Your task to perform on an android device: open app "Spotify" (install if not already installed) Image 0: 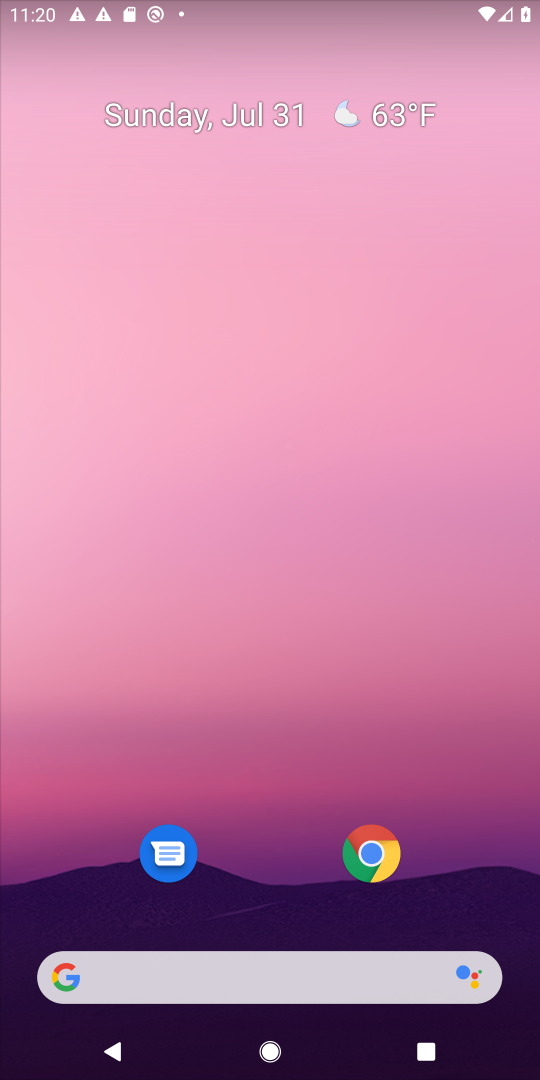
Step 0: drag from (319, 1060) to (325, 115)
Your task to perform on an android device: open app "Spotify" (install if not already installed) Image 1: 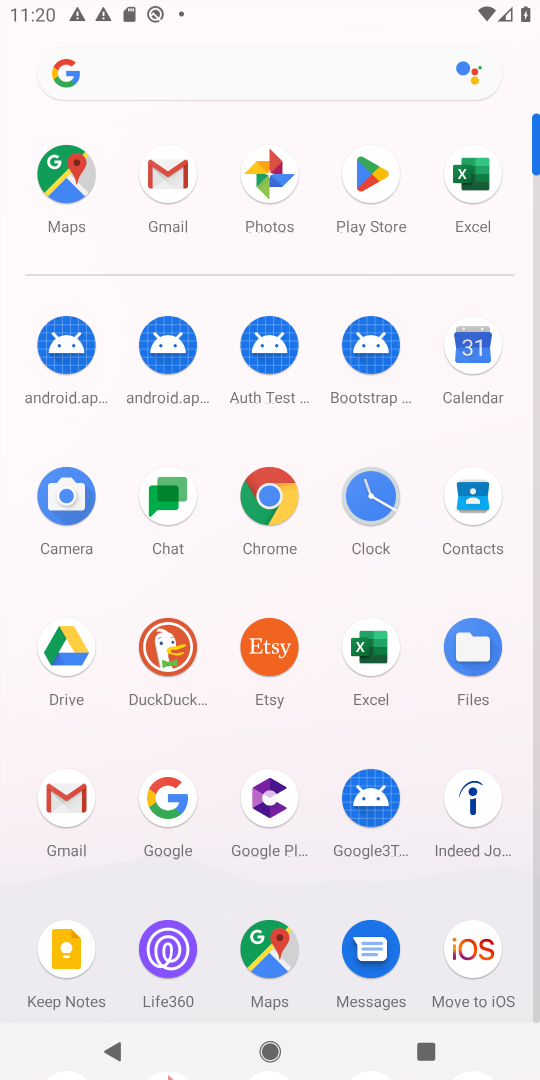
Step 1: drag from (345, 915) to (337, 460)
Your task to perform on an android device: open app "Spotify" (install if not already installed) Image 2: 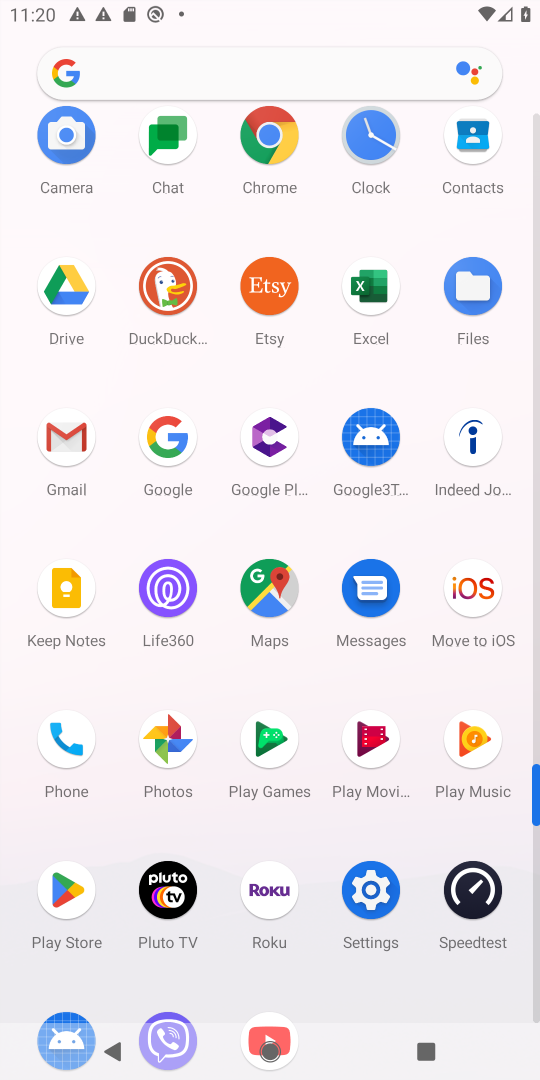
Step 2: click (67, 895)
Your task to perform on an android device: open app "Spotify" (install if not already installed) Image 3: 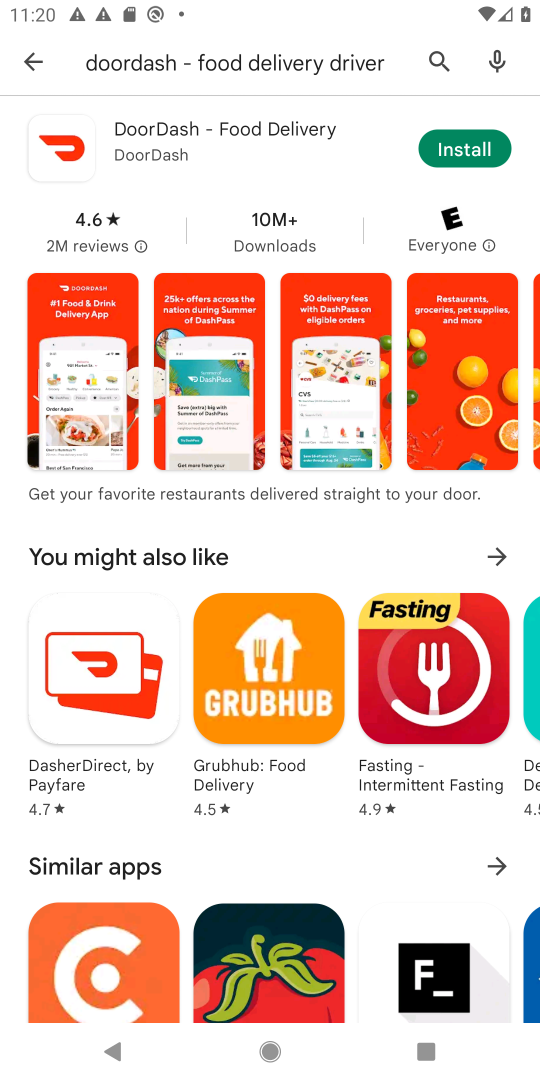
Step 3: click (439, 56)
Your task to perform on an android device: open app "Spotify" (install if not already installed) Image 4: 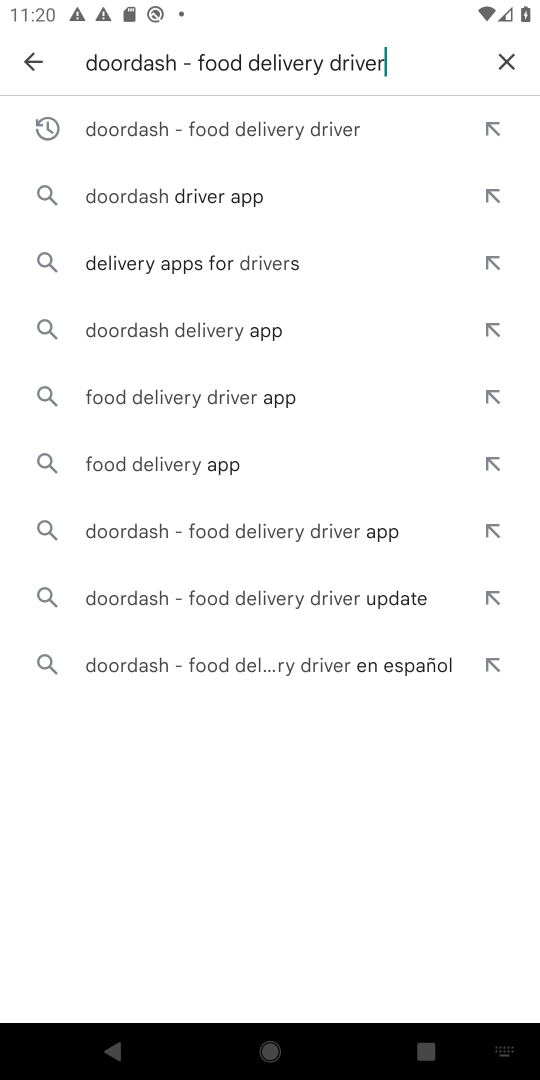
Step 4: click (501, 60)
Your task to perform on an android device: open app "Spotify" (install if not already installed) Image 5: 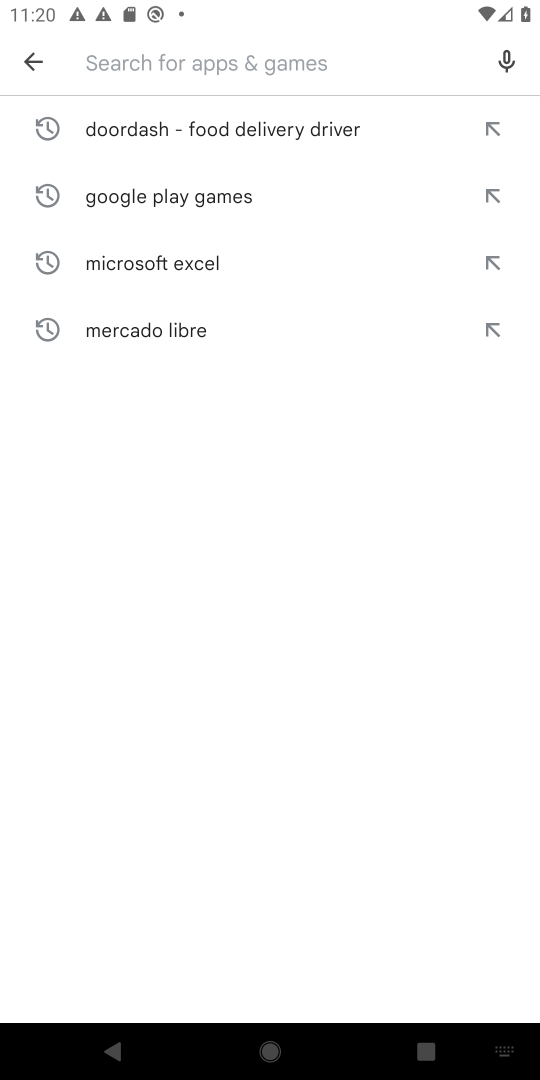
Step 5: type "Spotify"
Your task to perform on an android device: open app "Spotify" (install if not already installed) Image 6: 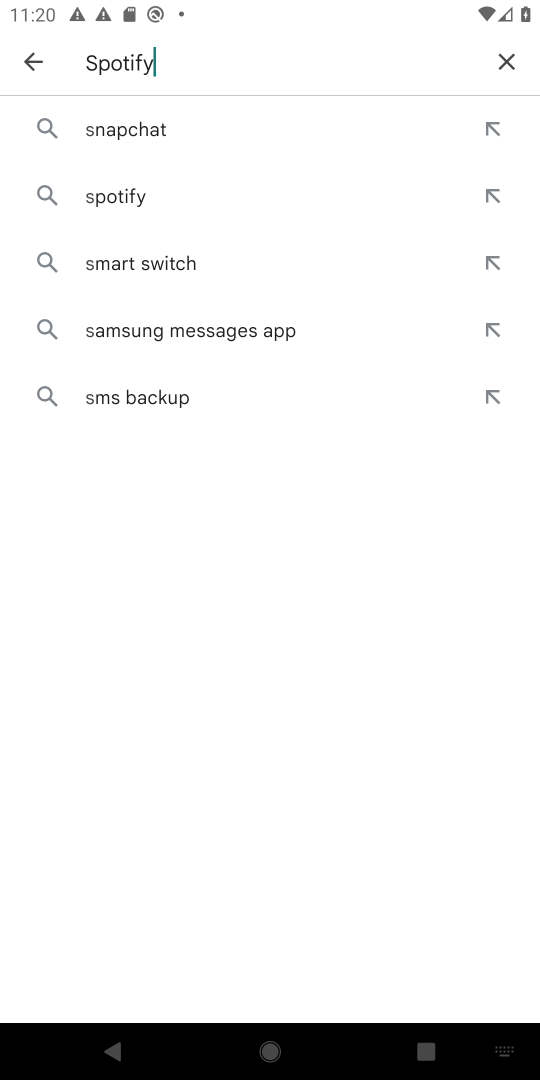
Step 6: type ""
Your task to perform on an android device: open app "Spotify" (install if not already installed) Image 7: 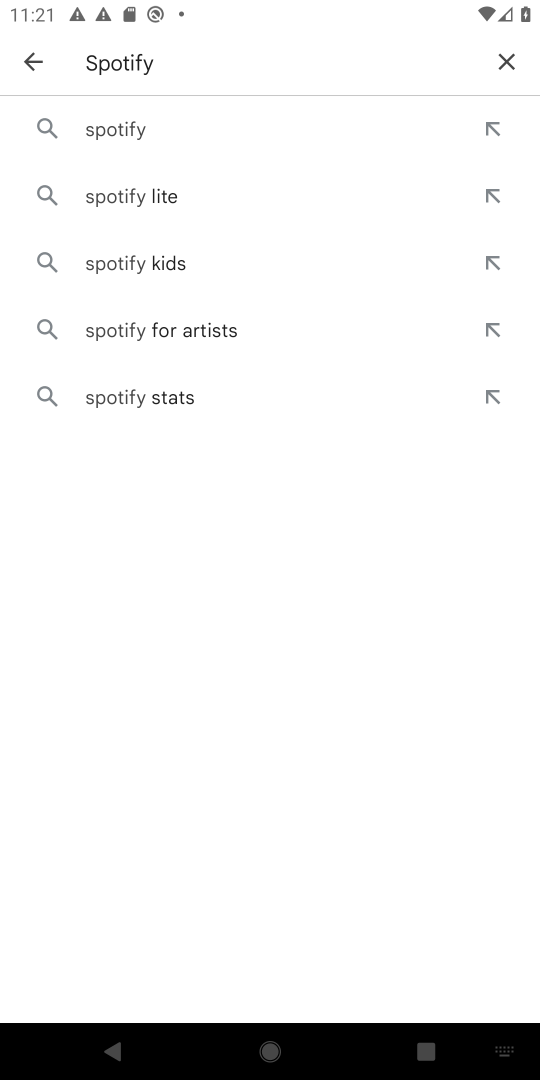
Step 7: click (109, 130)
Your task to perform on an android device: open app "Spotify" (install if not already installed) Image 8: 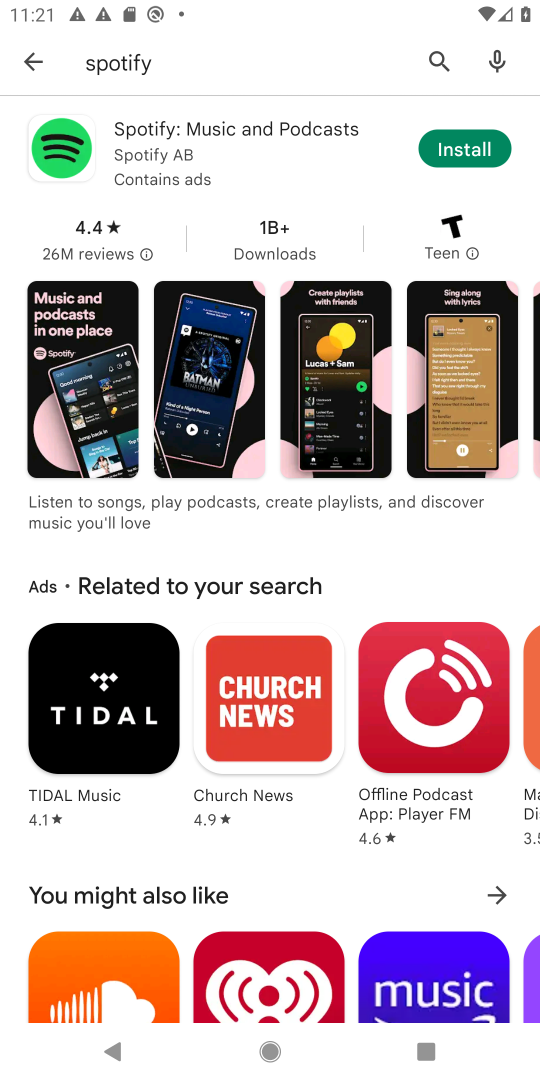
Step 8: click (459, 134)
Your task to perform on an android device: open app "Spotify" (install if not already installed) Image 9: 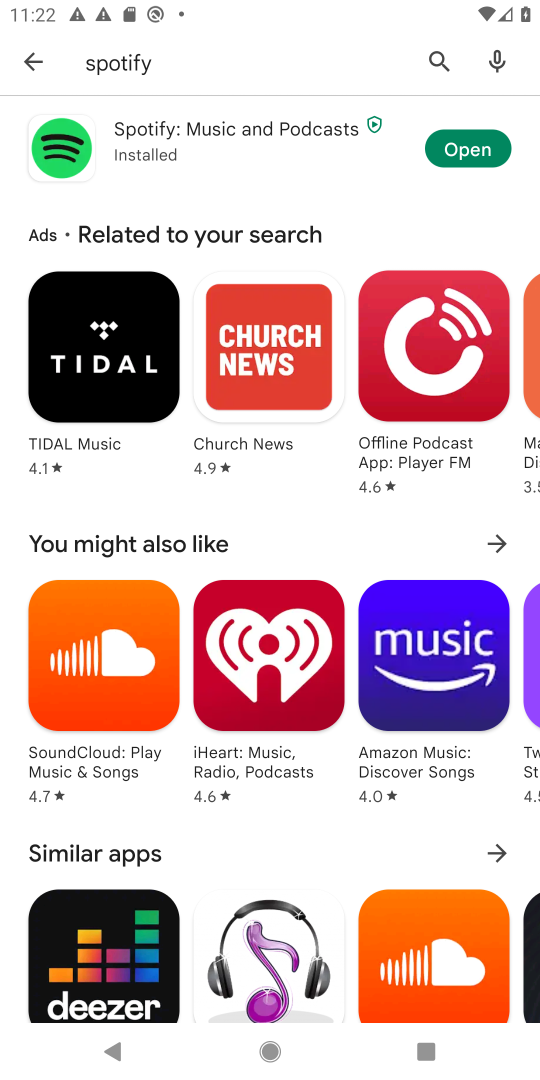
Step 9: click (471, 152)
Your task to perform on an android device: open app "Spotify" (install if not already installed) Image 10: 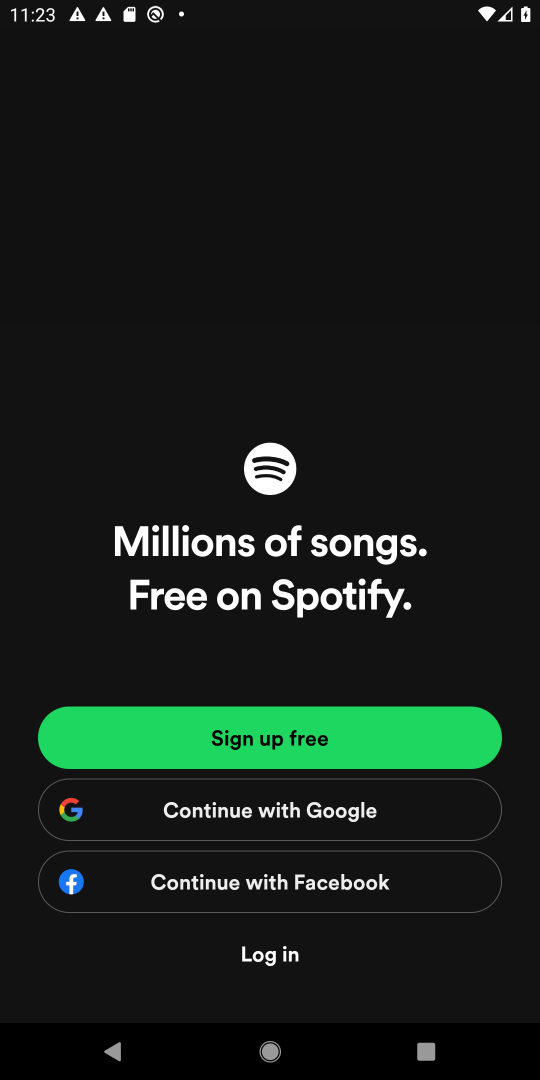
Step 10: task complete